Your task to perform on an android device: Clear the shopping cart on bestbuy. Search for "macbook pro" on bestbuy, select the first entry, add it to the cart, then select checkout. Image 0: 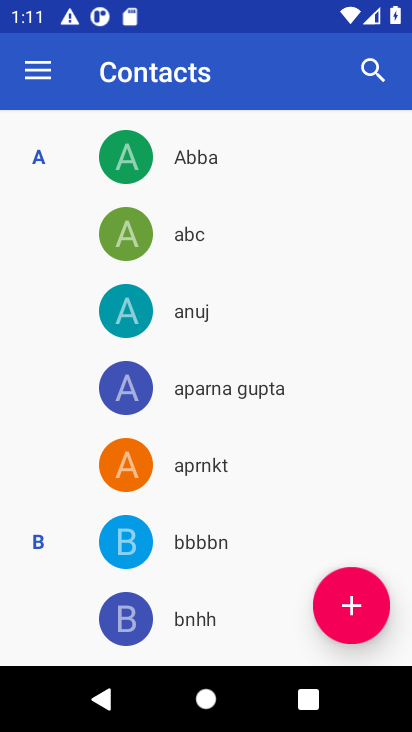
Step 0: press home button
Your task to perform on an android device: Clear the shopping cart on bestbuy. Search for "macbook pro" on bestbuy, select the first entry, add it to the cart, then select checkout. Image 1: 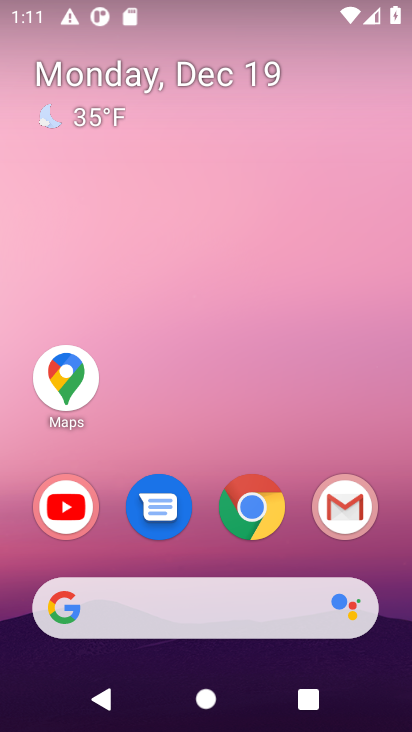
Step 1: click (258, 513)
Your task to perform on an android device: Clear the shopping cart on bestbuy. Search for "macbook pro" on bestbuy, select the first entry, add it to the cart, then select checkout. Image 2: 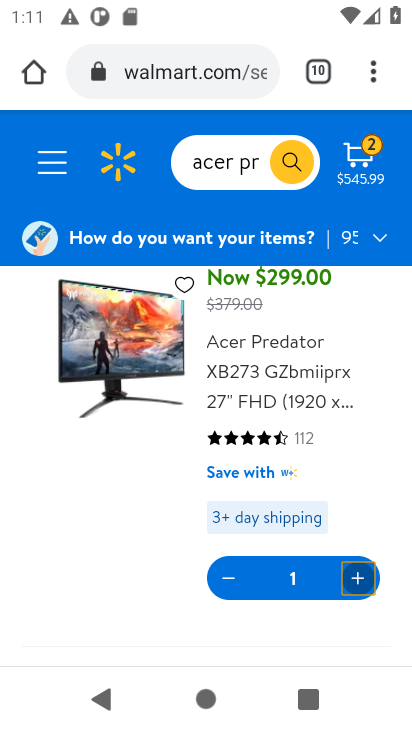
Step 2: click (161, 61)
Your task to perform on an android device: Clear the shopping cart on bestbuy. Search for "macbook pro" on bestbuy, select the first entry, add it to the cart, then select checkout. Image 3: 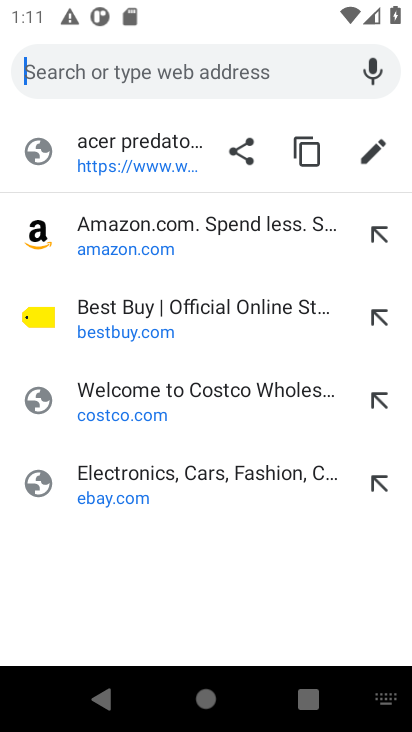
Step 3: click (116, 322)
Your task to perform on an android device: Clear the shopping cart on bestbuy. Search for "macbook pro" on bestbuy, select the first entry, add it to the cart, then select checkout. Image 4: 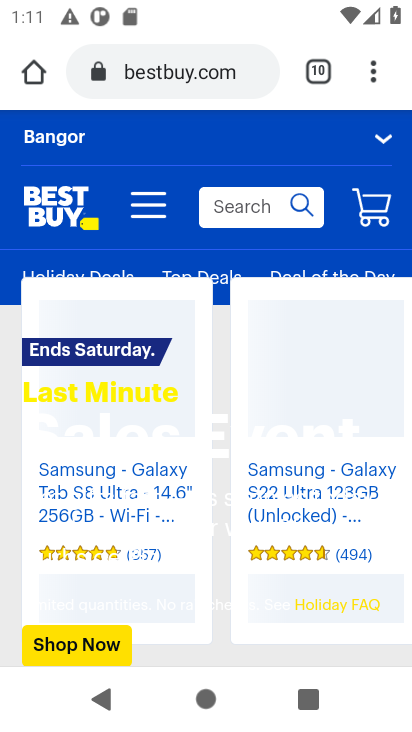
Step 4: click (368, 214)
Your task to perform on an android device: Clear the shopping cart on bestbuy. Search for "macbook pro" on bestbuy, select the first entry, add it to the cart, then select checkout. Image 5: 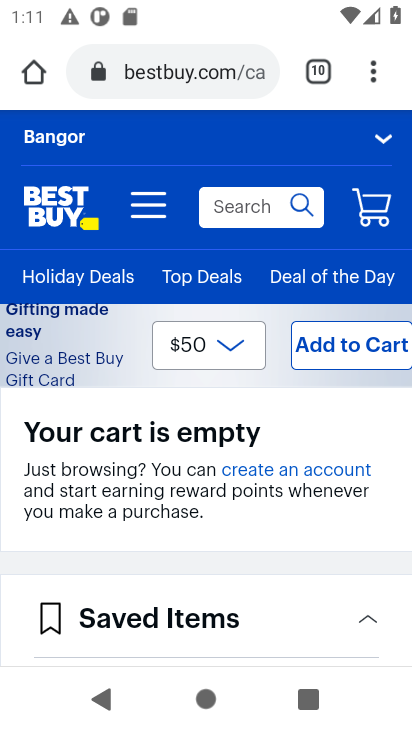
Step 5: click (247, 211)
Your task to perform on an android device: Clear the shopping cart on bestbuy. Search for "macbook pro" on bestbuy, select the first entry, add it to the cart, then select checkout. Image 6: 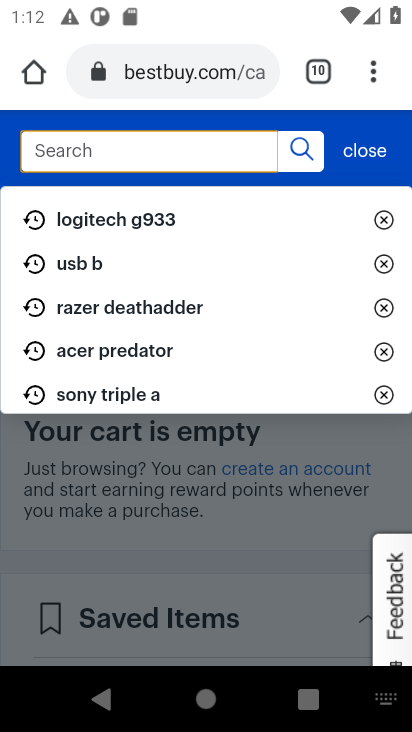
Step 6: type "macbook pro"
Your task to perform on an android device: Clear the shopping cart on bestbuy. Search for "macbook pro" on bestbuy, select the first entry, add it to the cart, then select checkout. Image 7: 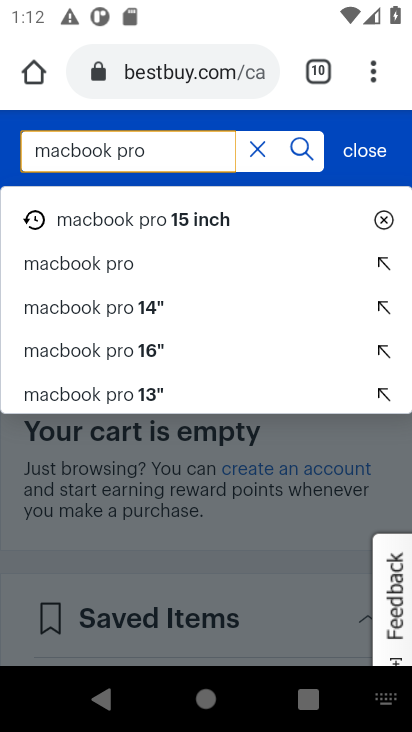
Step 7: click (92, 271)
Your task to perform on an android device: Clear the shopping cart on bestbuy. Search for "macbook pro" on bestbuy, select the first entry, add it to the cart, then select checkout. Image 8: 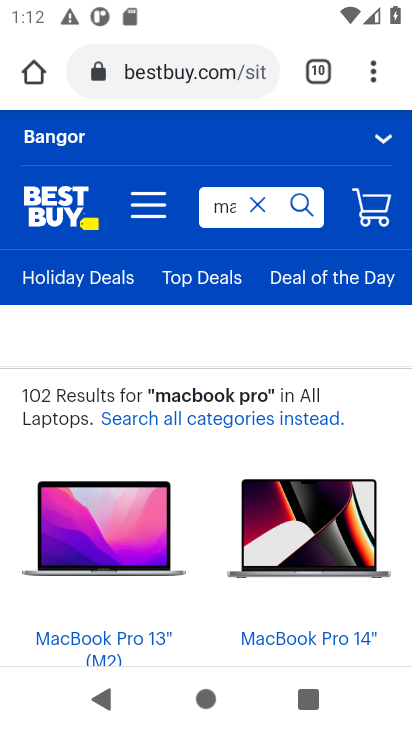
Step 8: drag from (181, 573) to (182, 305)
Your task to perform on an android device: Clear the shopping cart on bestbuy. Search for "macbook pro" on bestbuy, select the first entry, add it to the cart, then select checkout. Image 9: 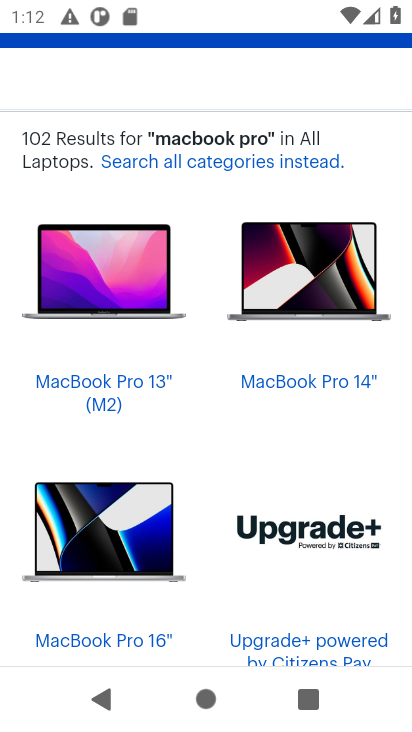
Step 9: drag from (187, 499) to (190, 268)
Your task to perform on an android device: Clear the shopping cart on bestbuy. Search for "macbook pro" on bestbuy, select the first entry, add it to the cart, then select checkout. Image 10: 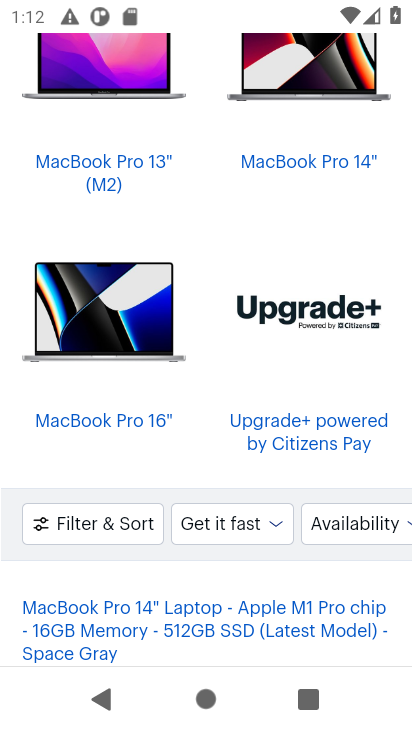
Step 10: drag from (186, 529) to (192, 298)
Your task to perform on an android device: Clear the shopping cart on bestbuy. Search for "macbook pro" on bestbuy, select the first entry, add it to the cart, then select checkout. Image 11: 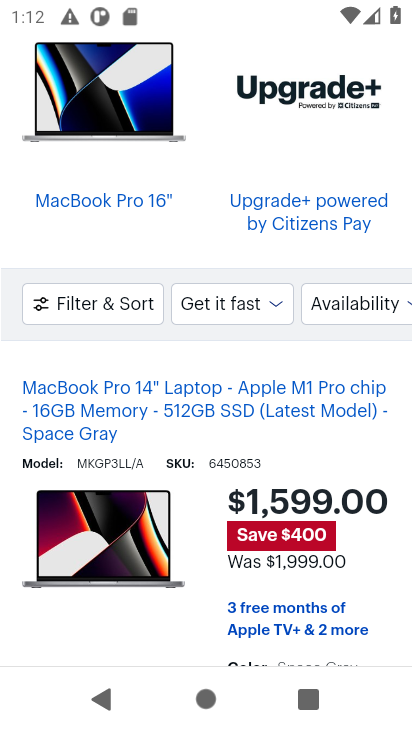
Step 11: drag from (181, 474) to (204, 333)
Your task to perform on an android device: Clear the shopping cart on bestbuy. Search for "macbook pro" on bestbuy, select the first entry, add it to the cart, then select checkout. Image 12: 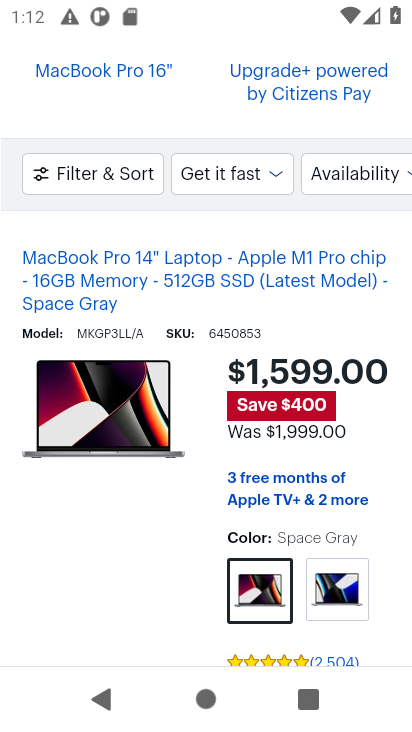
Step 12: drag from (212, 497) to (217, 364)
Your task to perform on an android device: Clear the shopping cart on bestbuy. Search for "macbook pro" on bestbuy, select the first entry, add it to the cart, then select checkout. Image 13: 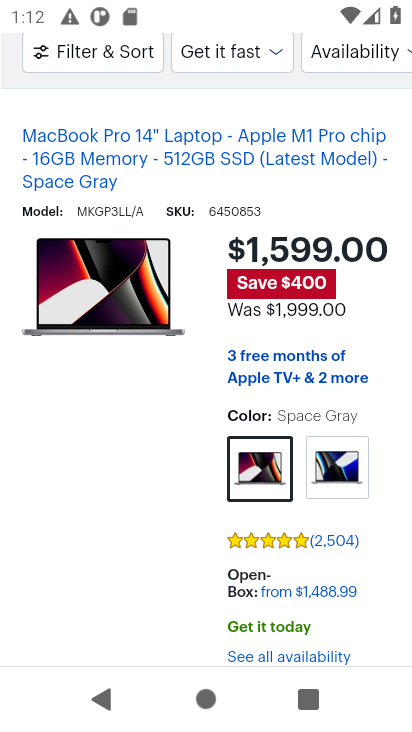
Step 13: drag from (221, 535) to (225, 358)
Your task to perform on an android device: Clear the shopping cart on bestbuy. Search for "macbook pro" on bestbuy, select the first entry, add it to the cart, then select checkout. Image 14: 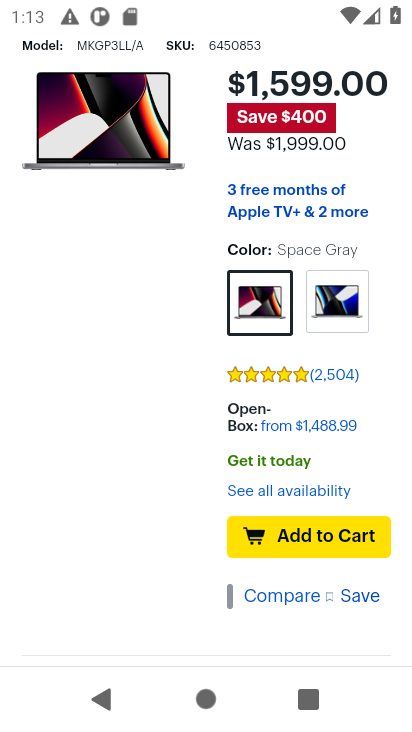
Step 14: click (330, 543)
Your task to perform on an android device: Clear the shopping cart on bestbuy. Search for "macbook pro" on bestbuy, select the first entry, add it to the cart, then select checkout. Image 15: 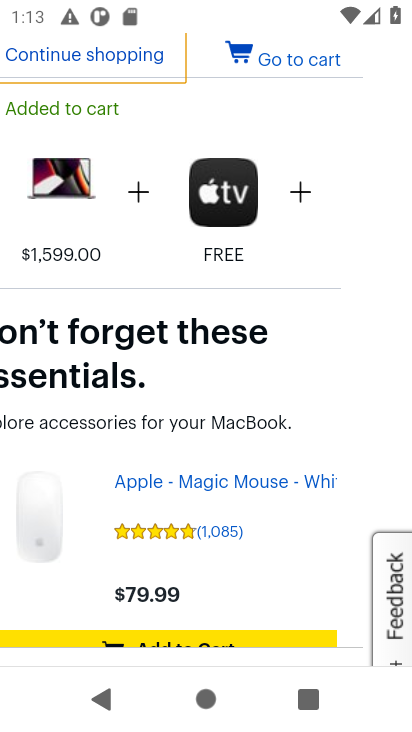
Step 15: click (295, 63)
Your task to perform on an android device: Clear the shopping cart on bestbuy. Search for "macbook pro" on bestbuy, select the first entry, add it to the cart, then select checkout. Image 16: 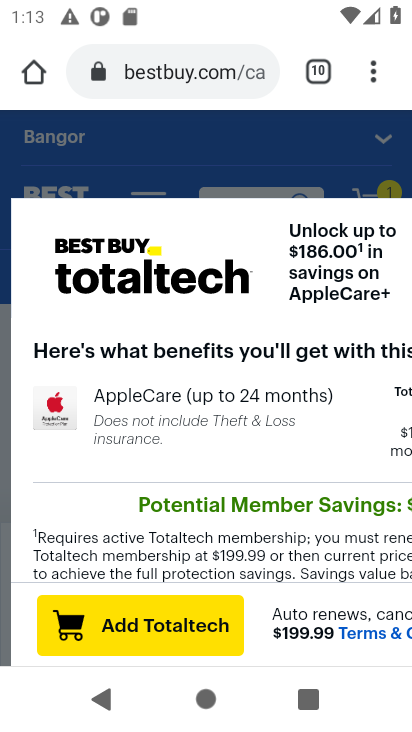
Step 16: click (298, 156)
Your task to perform on an android device: Clear the shopping cart on bestbuy. Search for "macbook pro" on bestbuy, select the first entry, add it to the cart, then select checkout. Image 17: 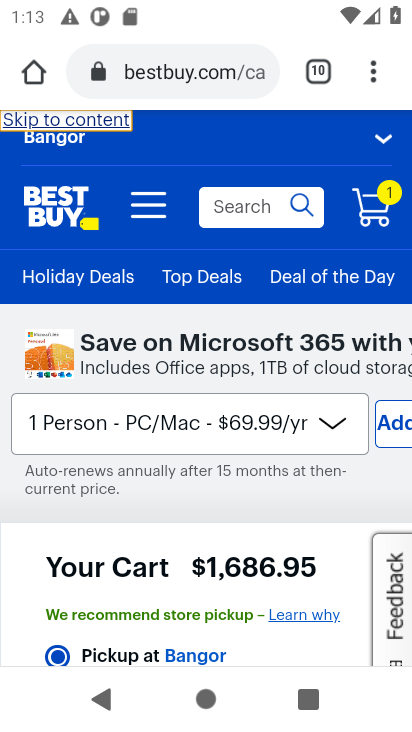
Step 17: drag from (191, 456) to (203, 249)
Your task to perform on an android device: Clear the shopping cart on bestbuy. Search for "macbook pro" on bestbuy, select the first entry, add it to the cart, then select checkout. Image 18: 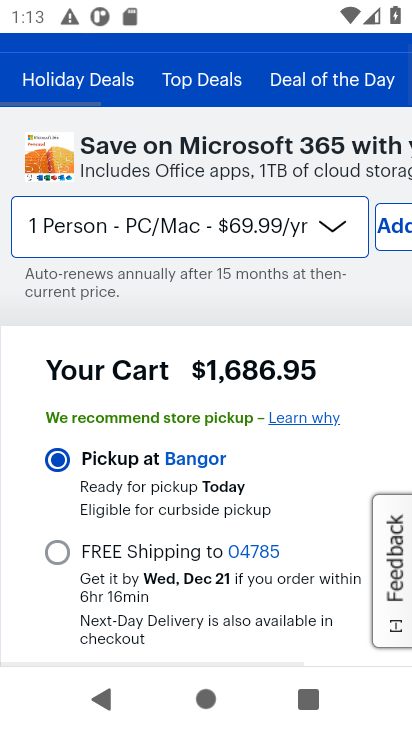
Step 18: drag from (197, 468) to (201, 152)
Your task to perform on an android device: Clear the shopping cart on bestbuy. Search for "macbook pro" on bestbuy, select the first entry, add it to the cart, then select checkout. Image 19: 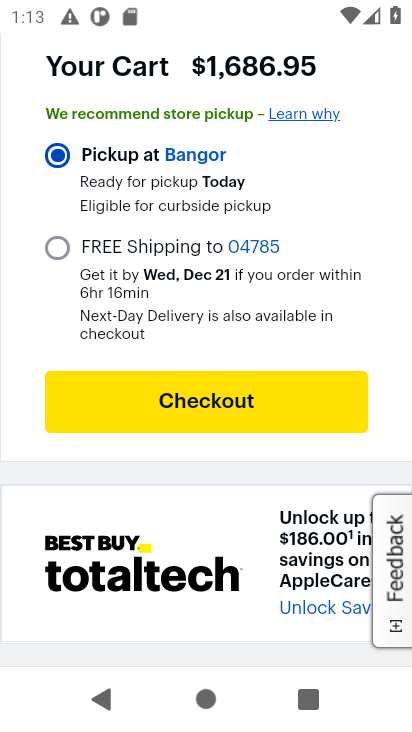
Step 19: click (189, 414)
Your task to perform on an android device: Clear the shopping cart on bestbuy. Search for "macbook pro" on bestbuy, select the first entry, add it to the cart, then select checkout. Image 20: 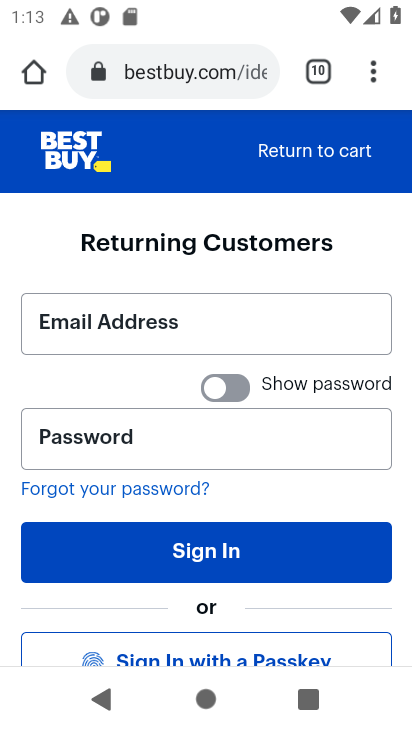
Step 20: task complete